Your task to perform on an android device: Open calendar and show me the fourth week of next month Image 0: 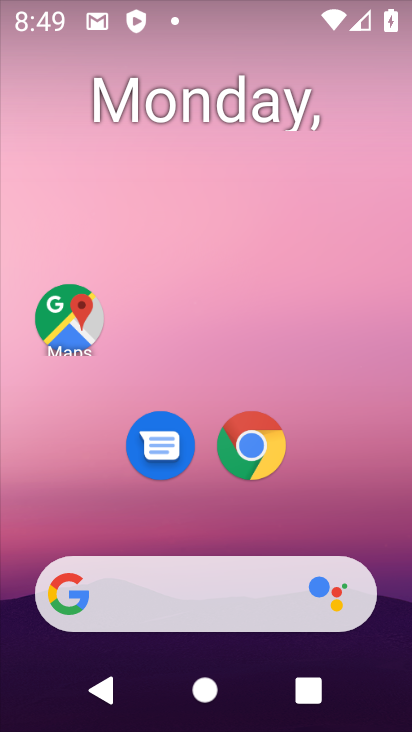
Step 0: drag from (170, 657) to (200, 13)
Your task to perform on an android device: Open calendar and show me the fourth week of next month Image 1: 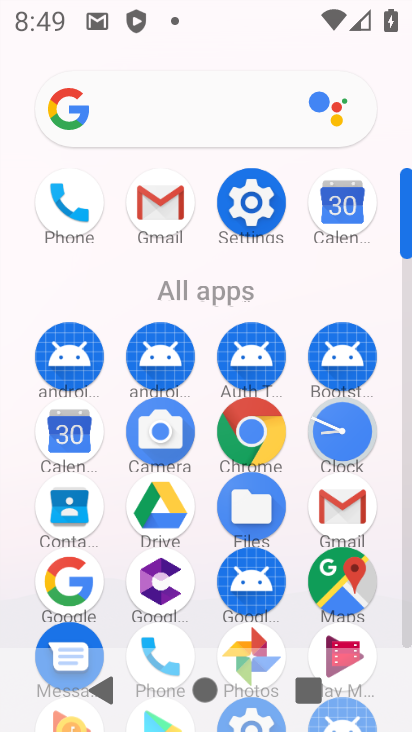
Step 1: click (71, 438)
Your task to perform on an android device: Open calendar and show me the fourth week of next month Image 2: 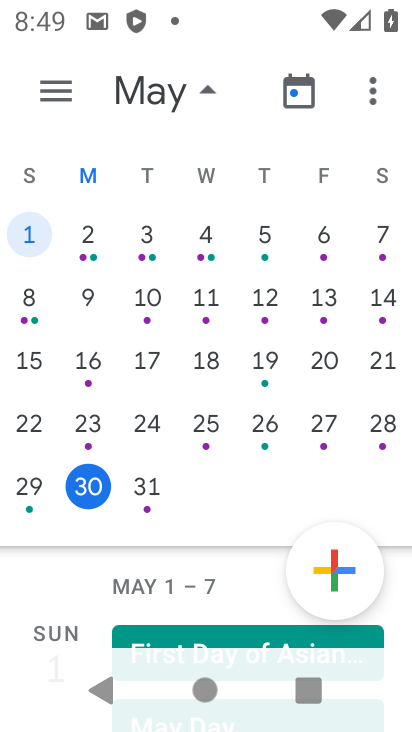
Step 2: drag from (324, 308) to (47, 335)
Your task to perform on an android device: Open calendar and show me the fourth week of next month Image 3: 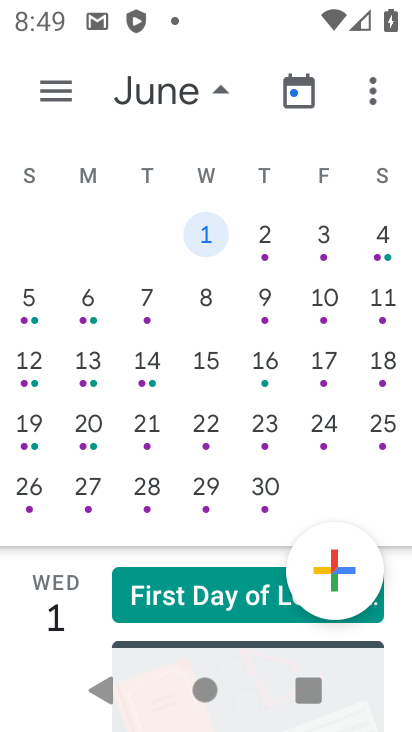
Step 3: click (30, 419)
Your task to perform on an android device: Open calendar and show me the fourth week of next month Image 4: 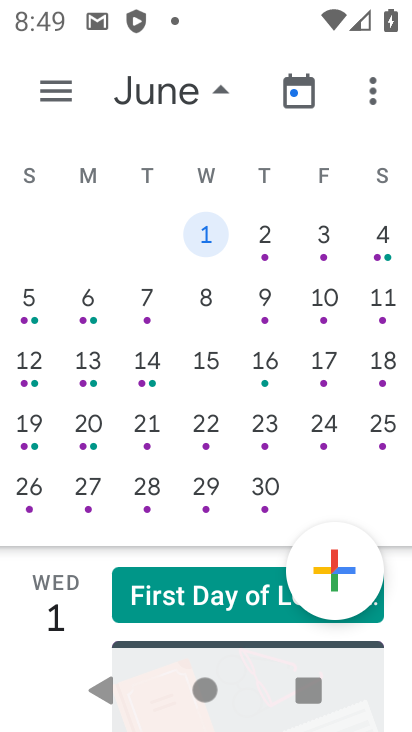
Step 4: click (30, 425)
Your task to perform on an android device: Open calendar and show me the fourth week of next month Image 5: 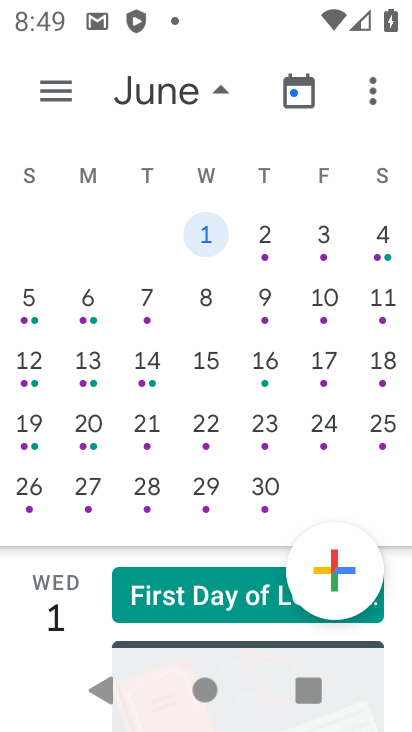
Step 5: click (32, 429)
Your task to perform on an android device: Open calendar and show me the fourth week of next month Image 6: 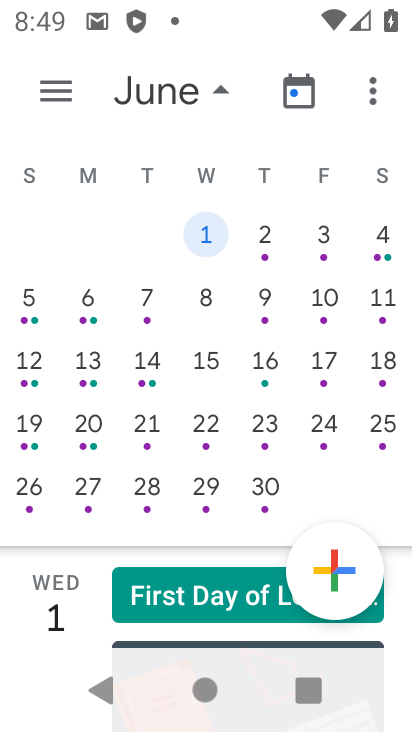
Step 6: click (27, 443)
Your task to perform on an android device: Open calendar and show me the fourth week of next month Image 7: 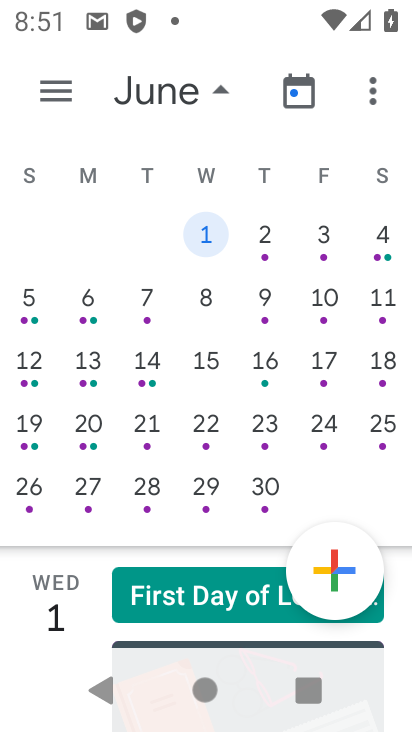
Step 7: click (28, 430)
Your task to perform on an android device: Open calendar and show me the fourth week of next month Image 8: 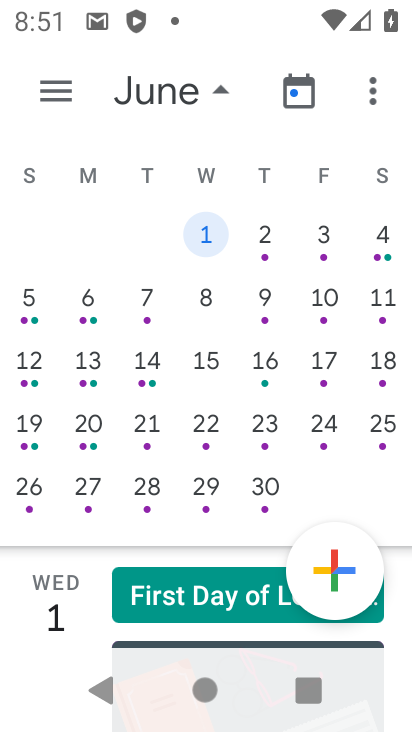
Step 8: click (37, 428)
Your task to perform on an android device: Open calendar and show me the fourth week of next month Image 9: 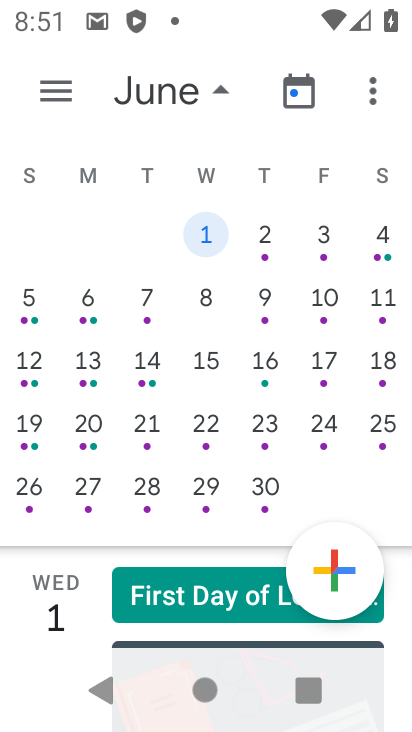
Step 9: click (37, 427)
Your task to perform on an android device: Open calendar and show me the fourth week of next month Image 10: 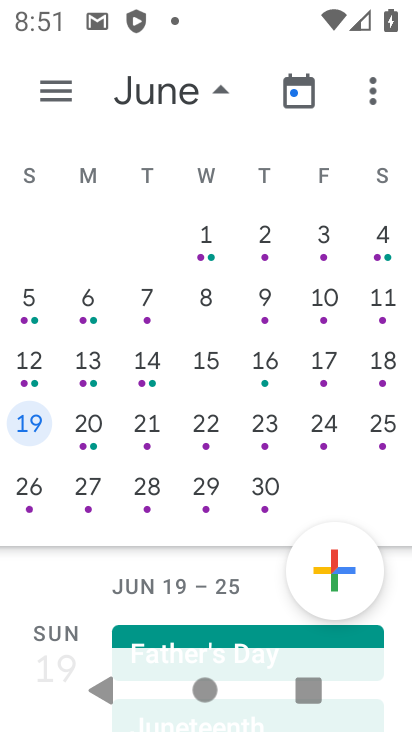
Step 10: click (37, 427)
Your task to perform on an android device: Open calendar and show me the fourth week of next month Image 11: 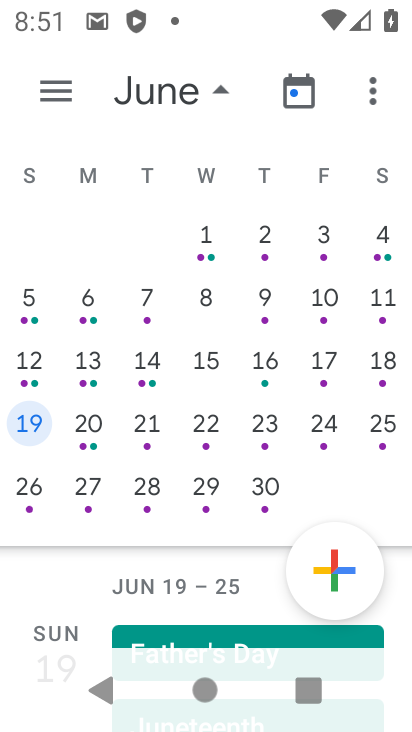
Step 11: task complete